Your task to perform on an android device: turn off sleep mode Image 0: 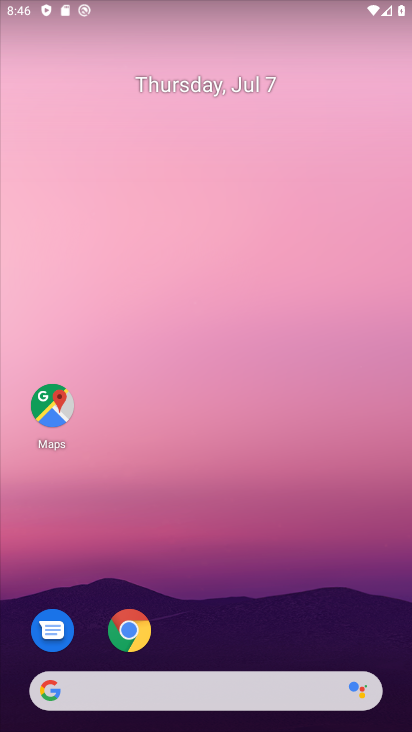
Step 0: drag from (218, 629) to (194, 177)
Your task to perform on an android device: turn off sleep mode Image 1: 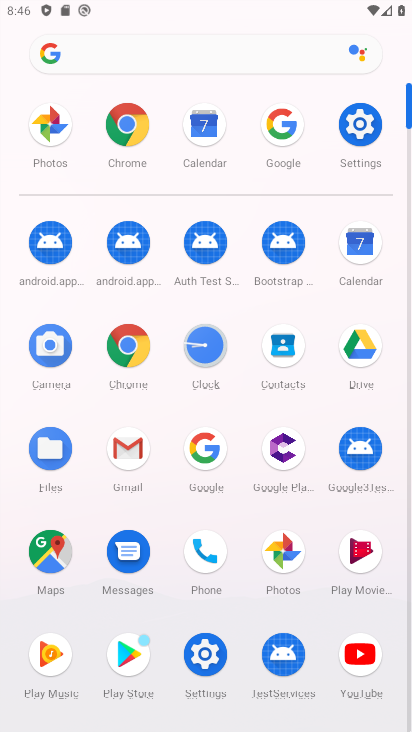
Step 1: click (358, 123)
Your task to perform on an android device: turn off sleep mode Image 2: 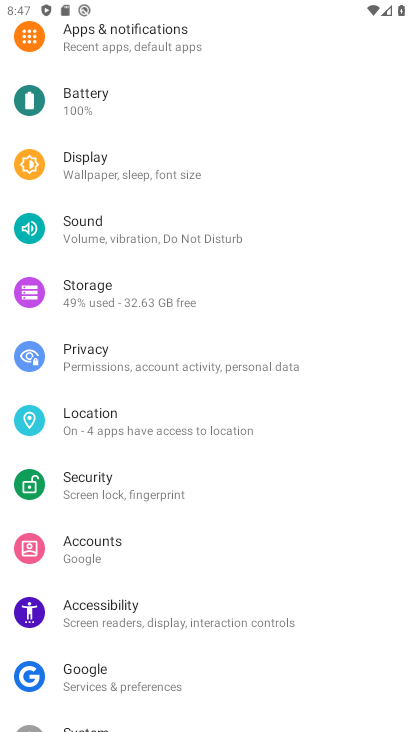
Step 2: click (104, 180)
Your task to perform on an android device: turn off sleep mode Image 3: 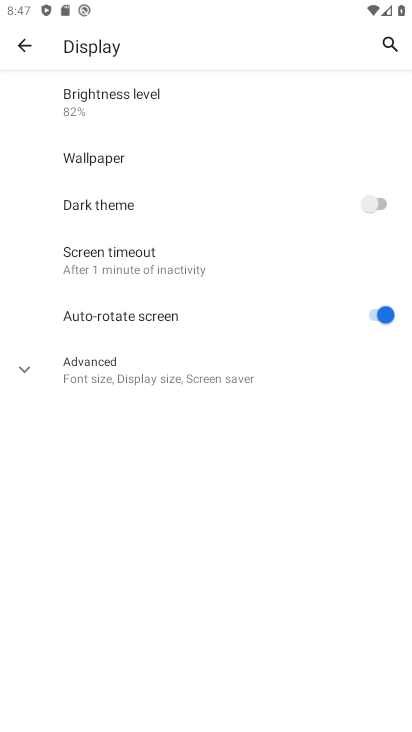
Step 3: click (146, 245)
Your task to perform on an android device: turn off sleep mode Image 4: 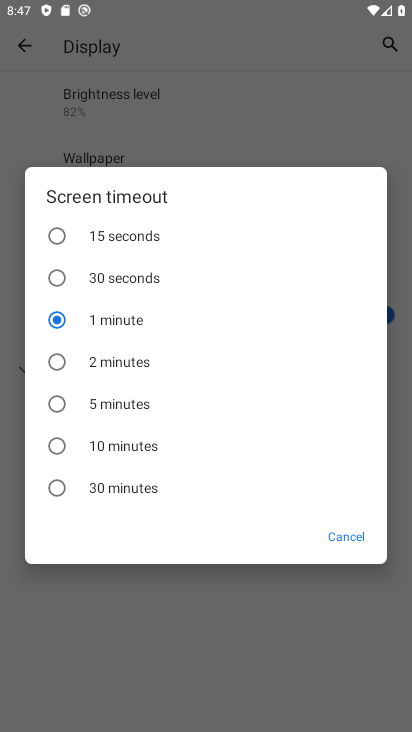
Step 4: click (136, 404)
Your task to perform on an android device: turn off sleep mode Image 5: 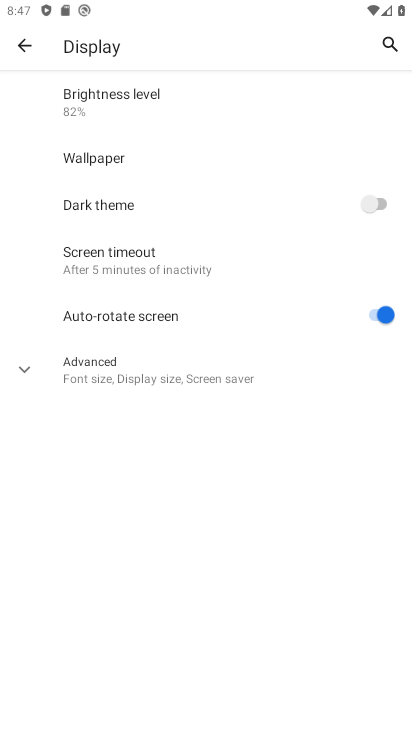
Step 5: task complete